Your task to perform on an android device: Go to battery settings Image 0: 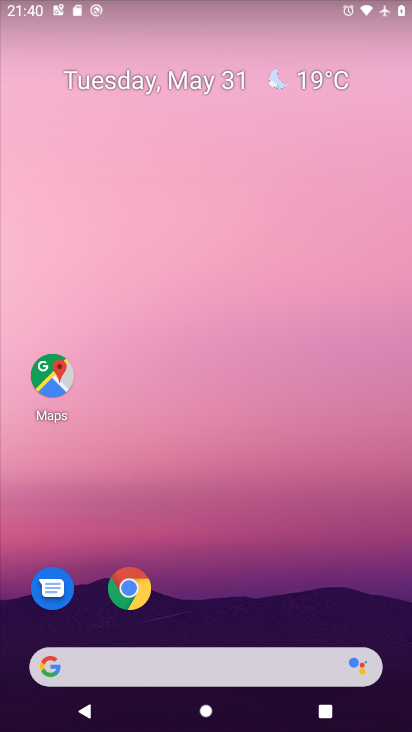
Step 0: drag from (176, 658) to (248, 159)
Your task to perform on an android device: Go to battery settings Image 1: 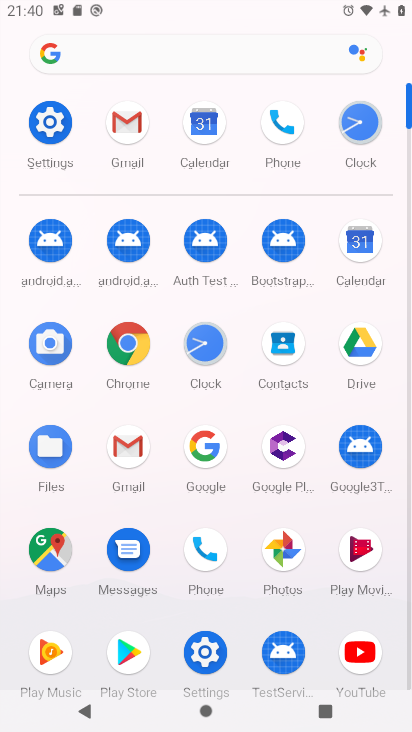
Step 1: click (49, 127)
Your task to perform on an android device: Go to battery settings Image 2: 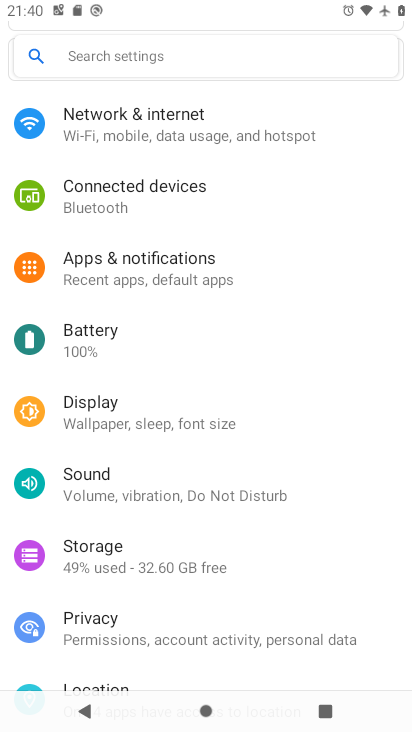
Step 2: click (85, 337)
Your task to perform on an android device: Go to battery settings Image 3: 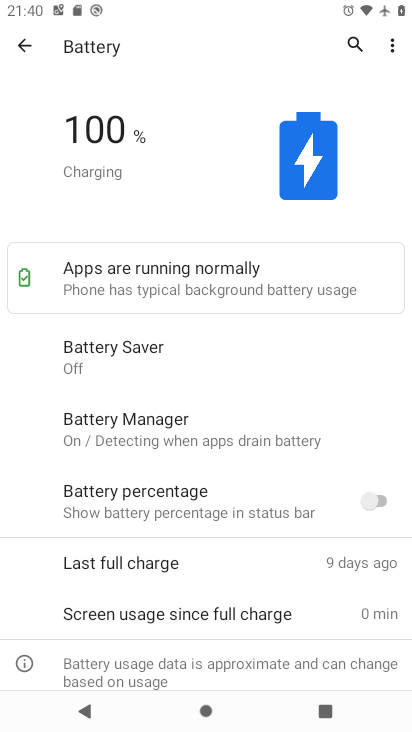
Step 3: task complete